Your task to perform on an android device: Go to CNN.com Image 0: 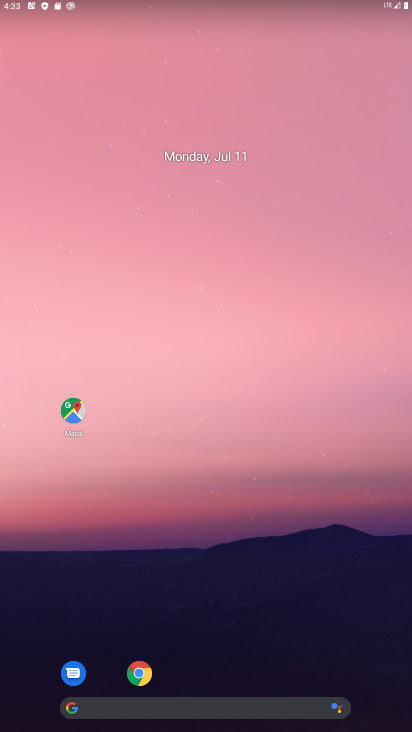
Step 0: click (136, 671)
Your task to perform on an android device: Go to CNN.com Image 1: 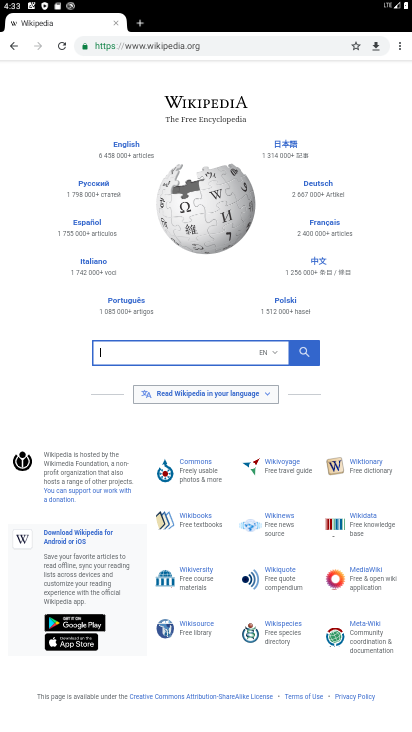
Step 1: click (263, 49)
Your task to perform on an android device: Go to CNN.com Image 2: 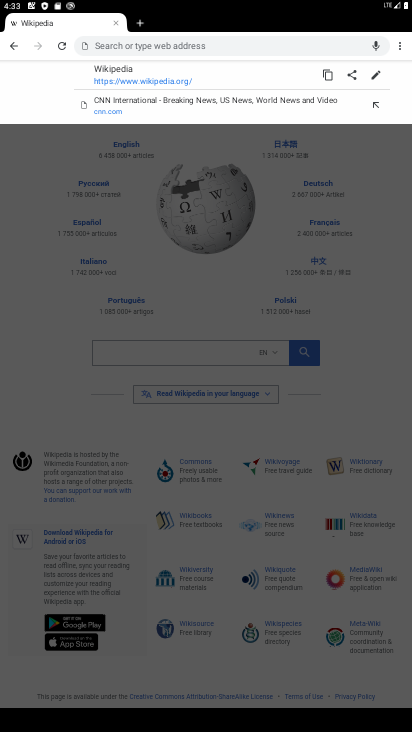
Step 2: type "CNN.com"
Your task to perform on an android device: Go to CNN.com Image 3: 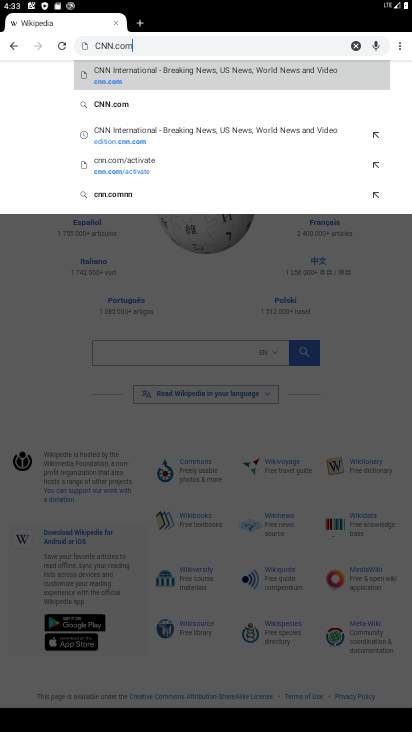
Step 3: click (122, 102)
Your task to perform on an android device: Go to CNN.com Image 4: 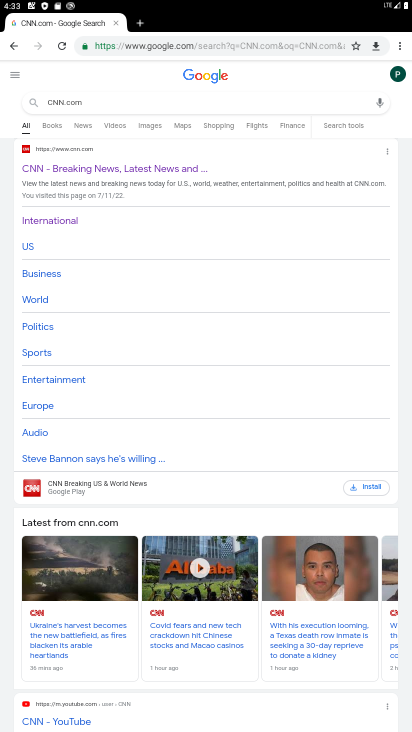
Step 4: click (141, 168)
Your task to perform on an android device: Go to CNN.com Image 5: 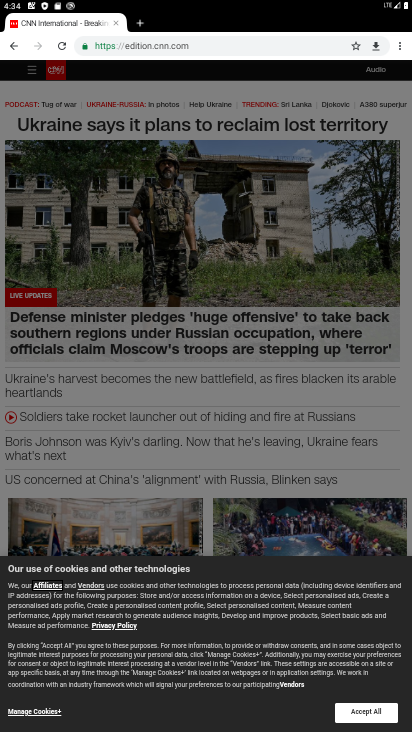
Step 5: task complete